Your task to perform on an android device: turn on bluetooth scan Image 0: 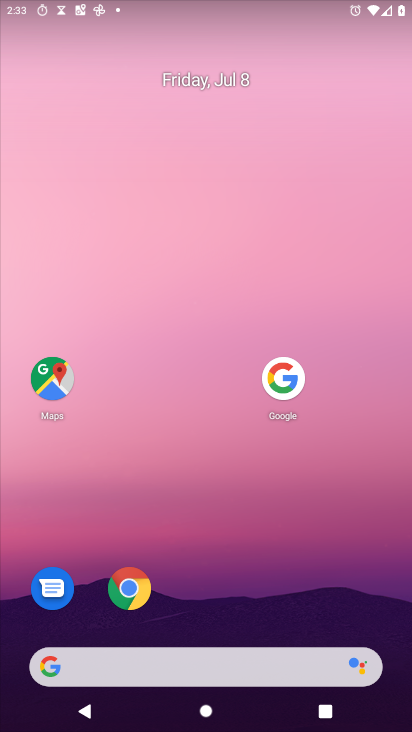
Step 0: drag from (212, 626) to (255, 151)
Your task to perform on an android device: turn on bluetooth scan Image 1: 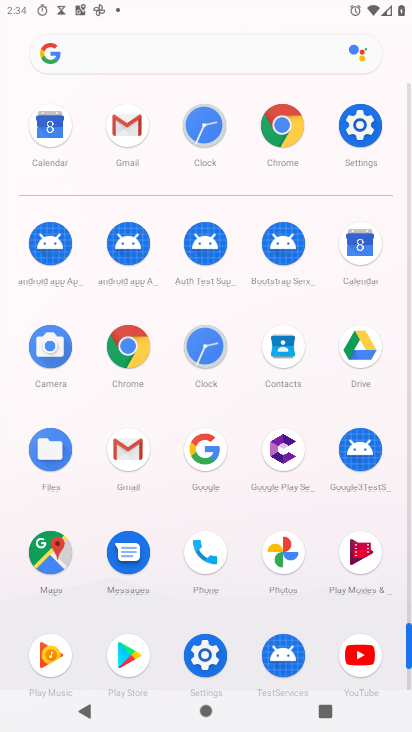
Step 1: click (358, 131)
Your task to perform on an android device: turn on bluetooth scan Image 2: 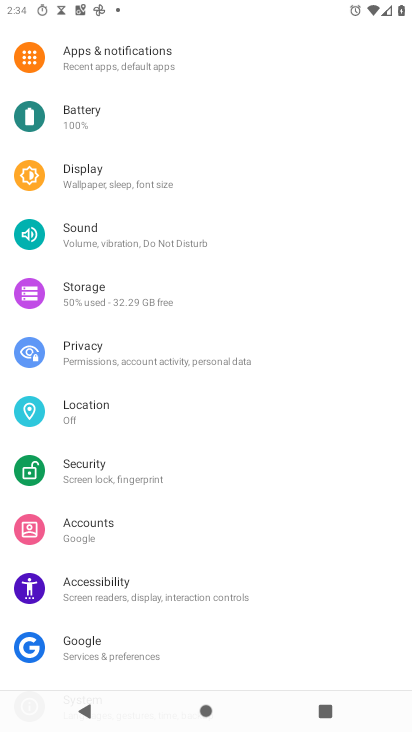
Step 2: click (83, 413)
Your task to perform on an android device: turn on bluetooth scan Image 3: 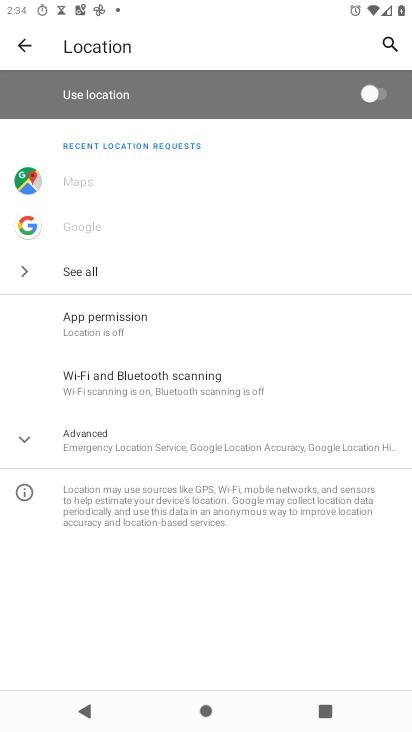
Step 3: click (143, 379)
Your task to perform on an android device: turn on bluetooth scan Image 4: 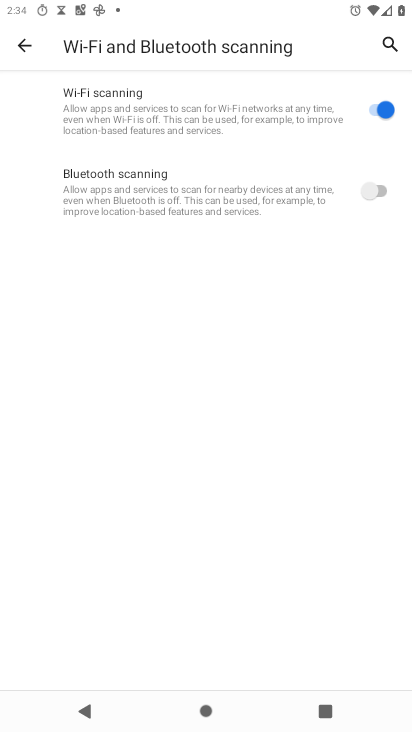
Step 4: click (377, 186)
Your task to perform on an android device: turn on bluetooth scan Image 5: 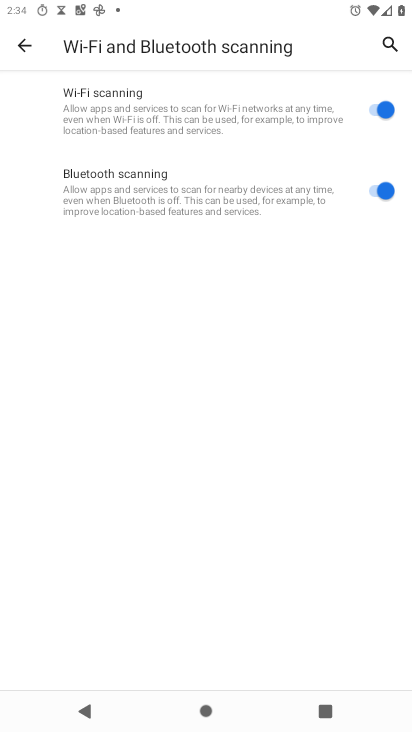
Step 5: task complete